Your task to perform on an android device: change the upload size in google photos Image 0: 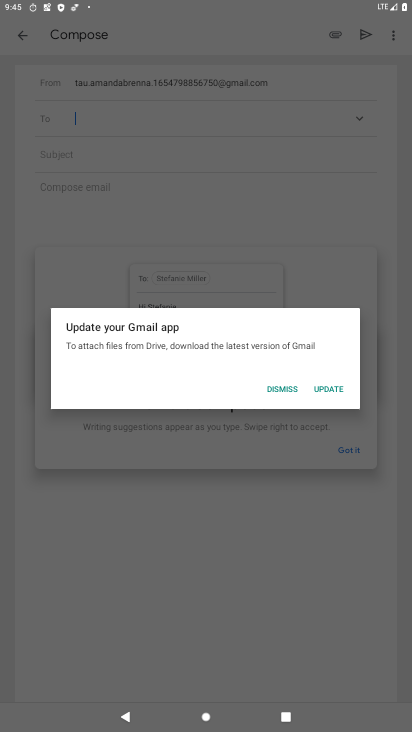
Step 0: press home button
Your task to perform on an android device: change the upload size in google photos Image 1: 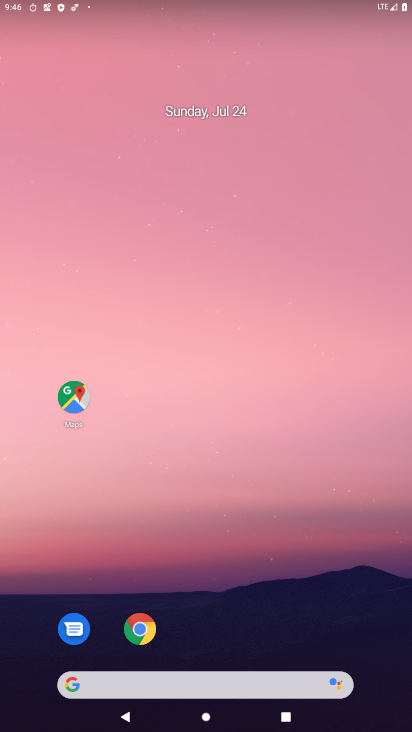
Step 1: drag from (276, 627) to (250, 64)
Your task to perform on an android device: change the upload size in google photos Image 2: 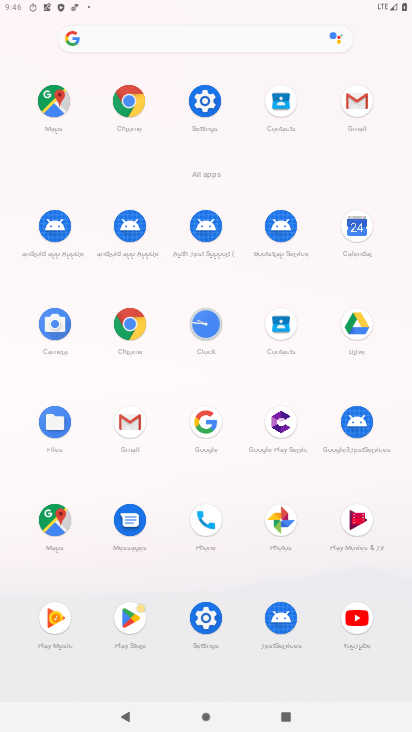
Step 2: click (274, 519)
Your task to perform on an android device: change the upload size in google photos Image 3: 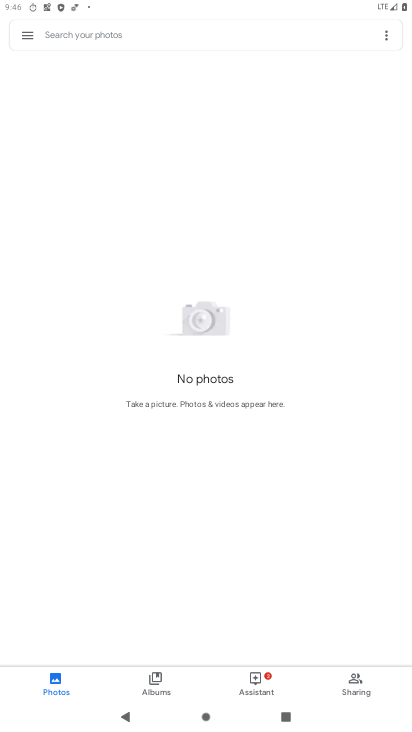
Step 3: click (28, 34)
Your task to perform on an android device: change the upload size in google photos Image 4: 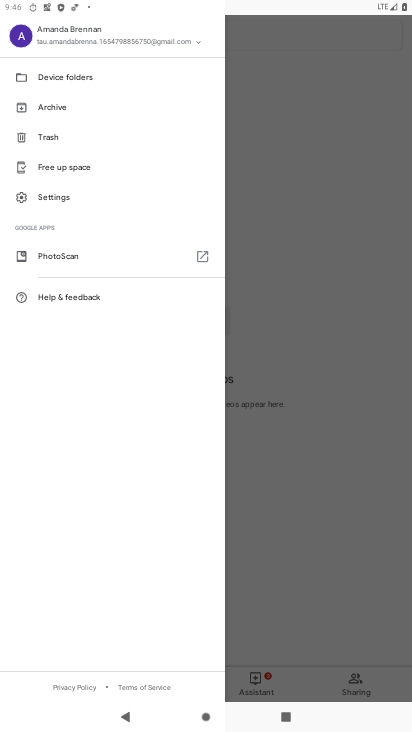
Step 4: click (58, 191)
Your task to perform on an android device: change the upload size in google photos Image 5: 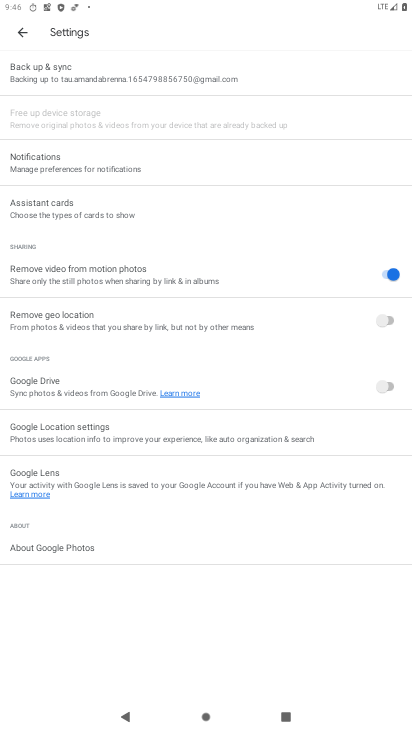
Step 5: click (77, 73)
Your task to perform on an android device: change the upload size in google photos Image 6: 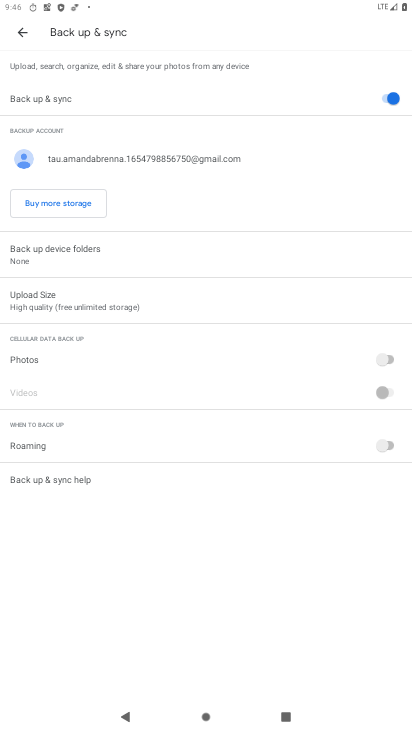
Step 6: click (129, 320)
Your task to perform on an android device: change the upload size in google photos Image 7: 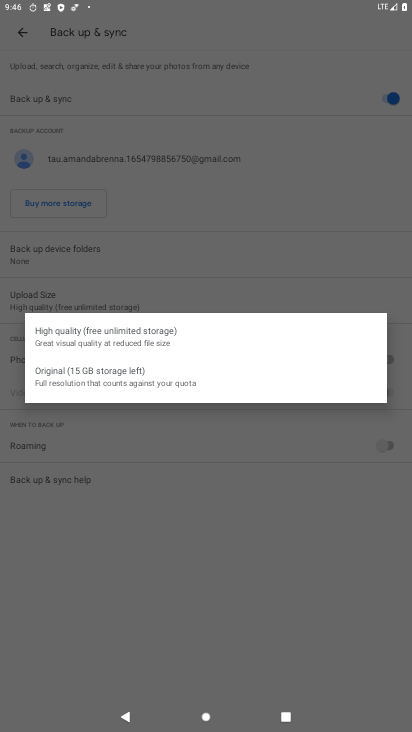
Step 7: click (110, 377)
Your task to perform on an android device: change the upload size in google photos Image 8: 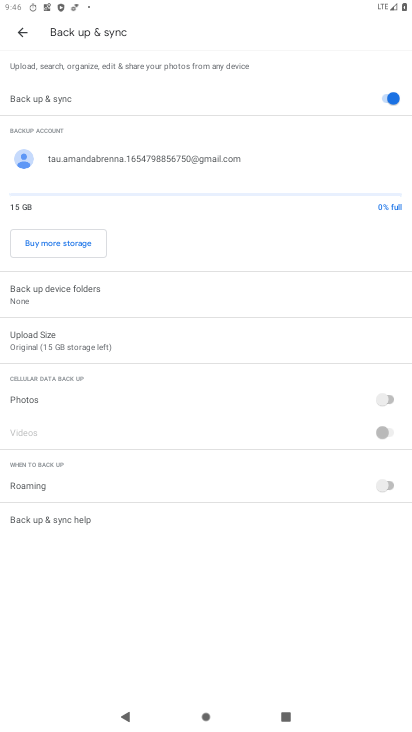
Step 8: task complete